Your task to perform on an android device: open a new tab in the chrome app Image 0: 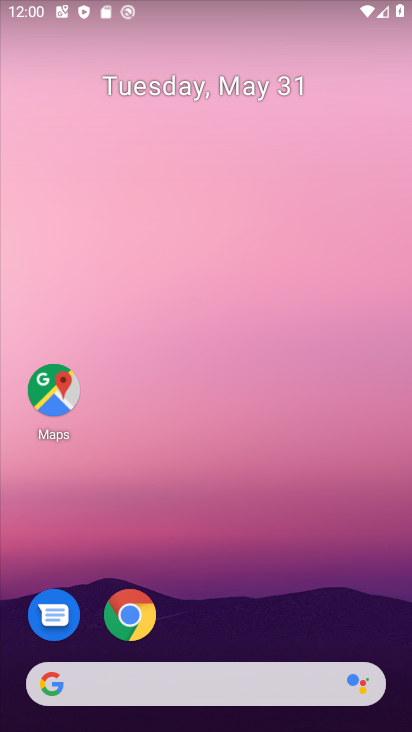
Step 0: drag from (222, 621) to (267, 0)
Your task to perform on an android device: open a new tab in the chrome app Image 1: 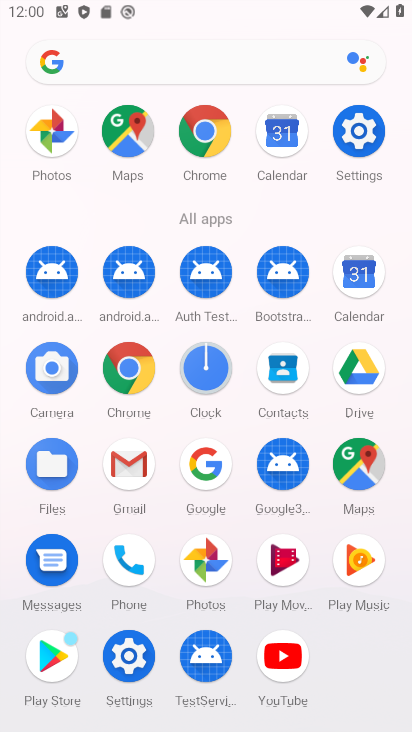
Step 1: click (123, 385)
Your task to perform on an android device: open a new tab in the chrome app Image 2: 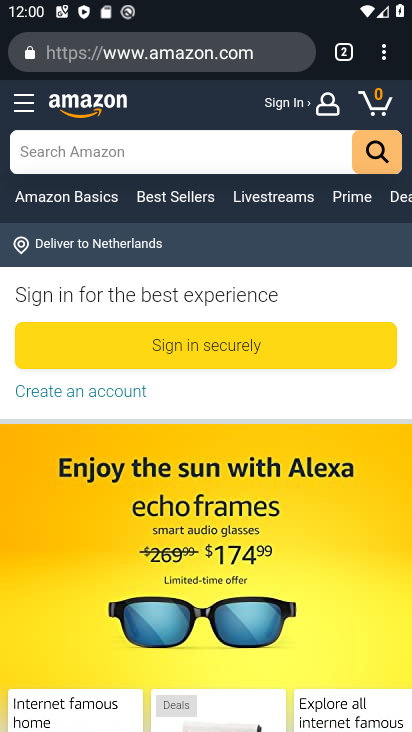
Step 2: click (387, 63)
Your task to perform on an android device: open a new tab in the chrome app Image 3: 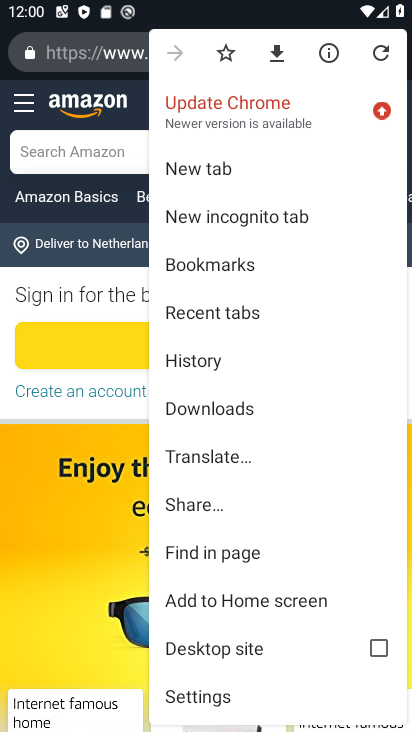
Step 3: click (220, 174)
Your task to perform on an android device: open a new tab in the chrome app Image 4: 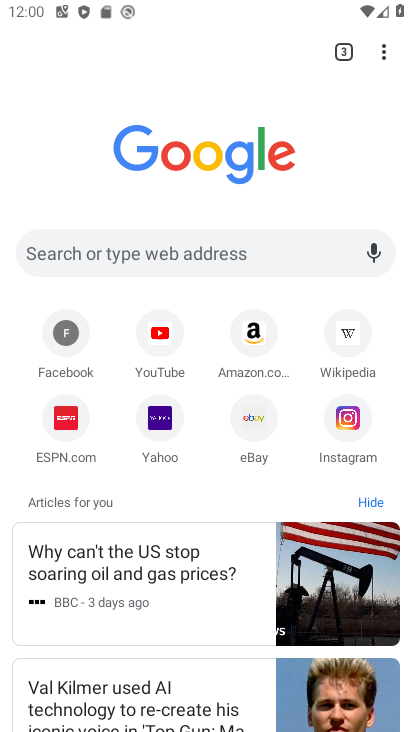
Step 4: task complete